Your task to perform on an android device: delete browsing data in the chrome app Image 0: 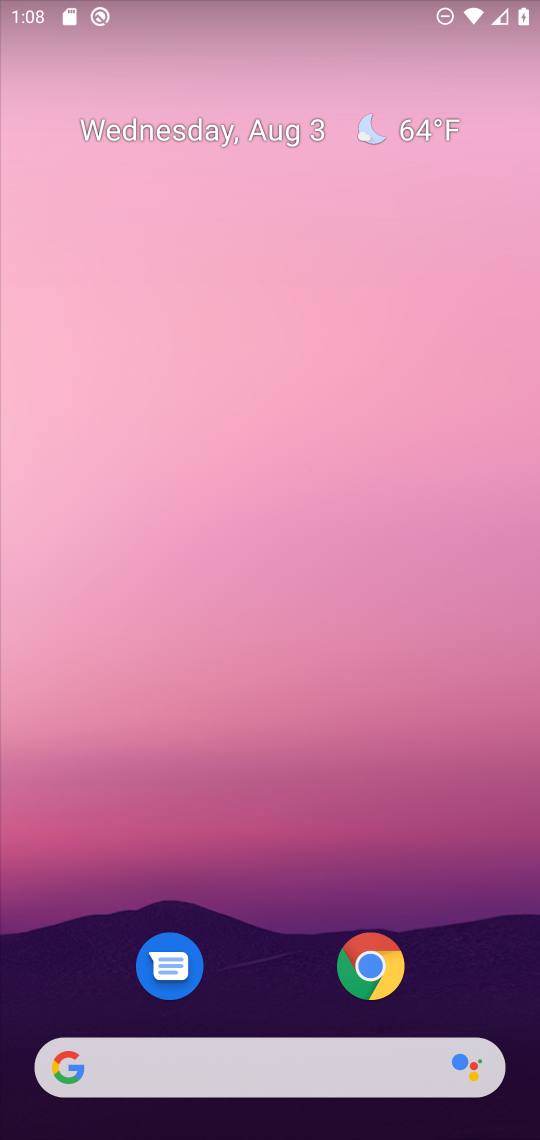
Step 0: click (374, 951)
Your task to perform on an android device: delete browsing data in the chrome app Image 1: 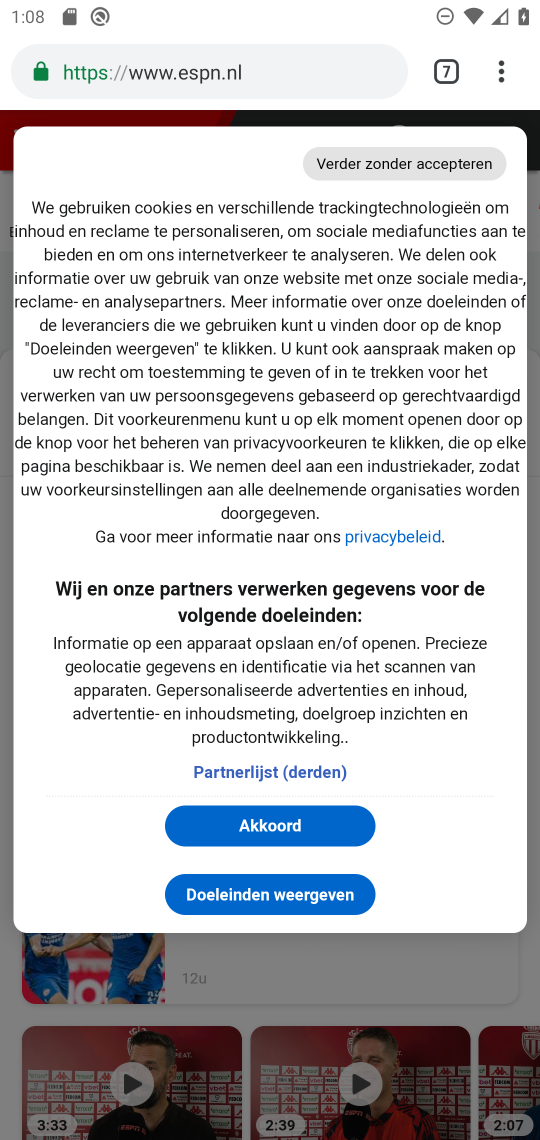
Step 1: click (501, 67)
Your task to perform on an android device: delete browsing data in the chrome app Image 2: 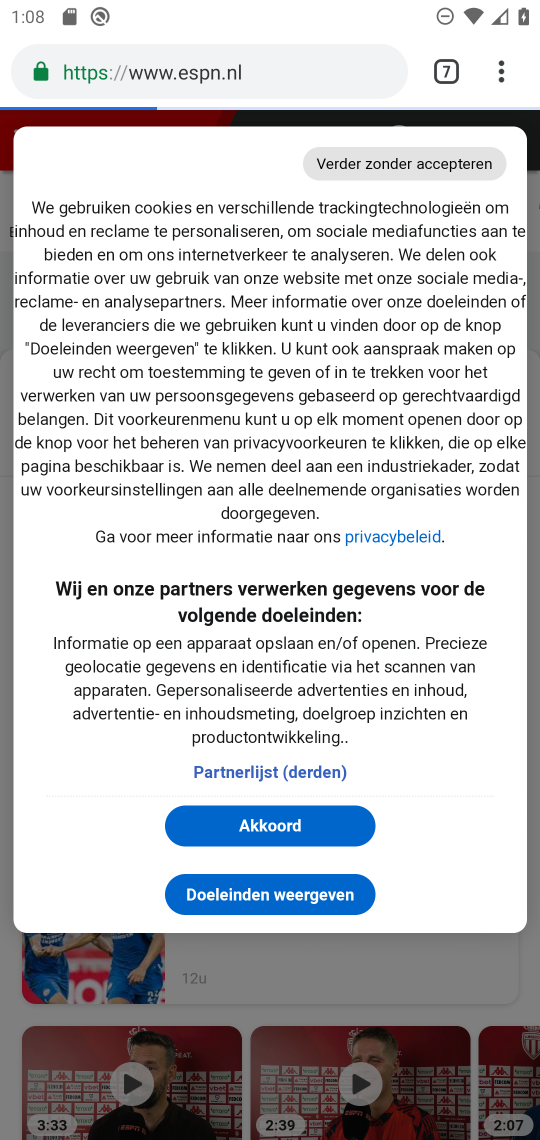
Step 2: drag from (501, 67) to (266, 410)
Your task to perform on an android device: delete browsing data in the chrome app Image 3: 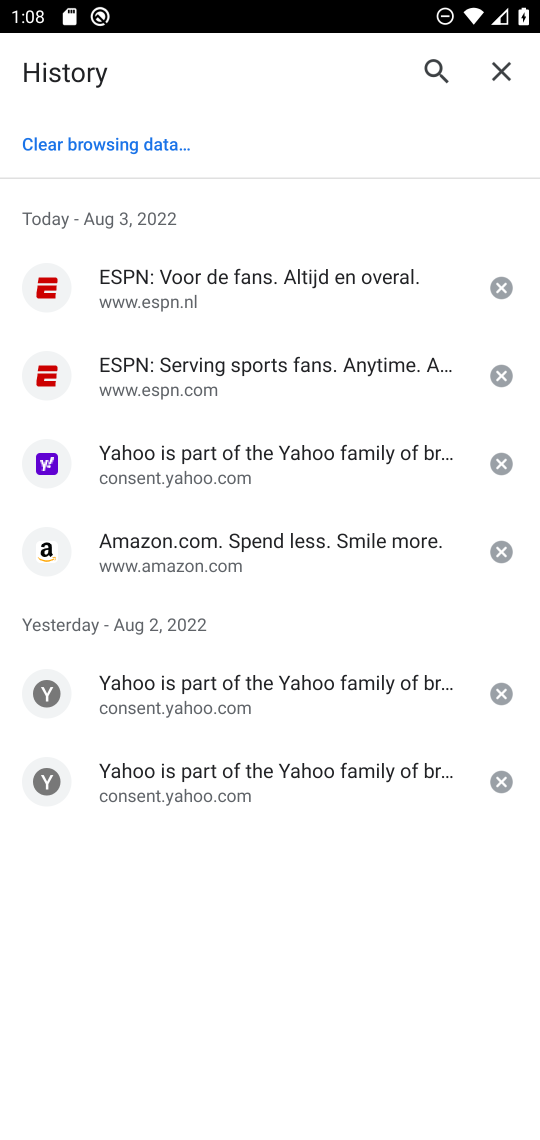
Step 3: click (144, 146)
Your task to perform on an android device: delete browsing data in the chrome app Image 4: 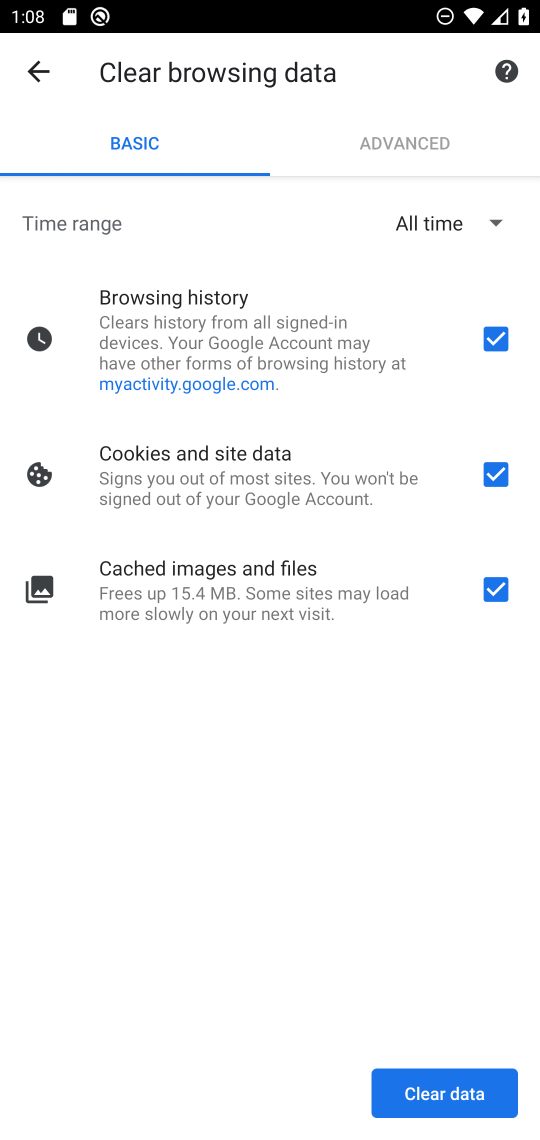
Step 4: click (453, 1080)
Your task to perform on an android device: delete browsing data in the chrome app Image 5: 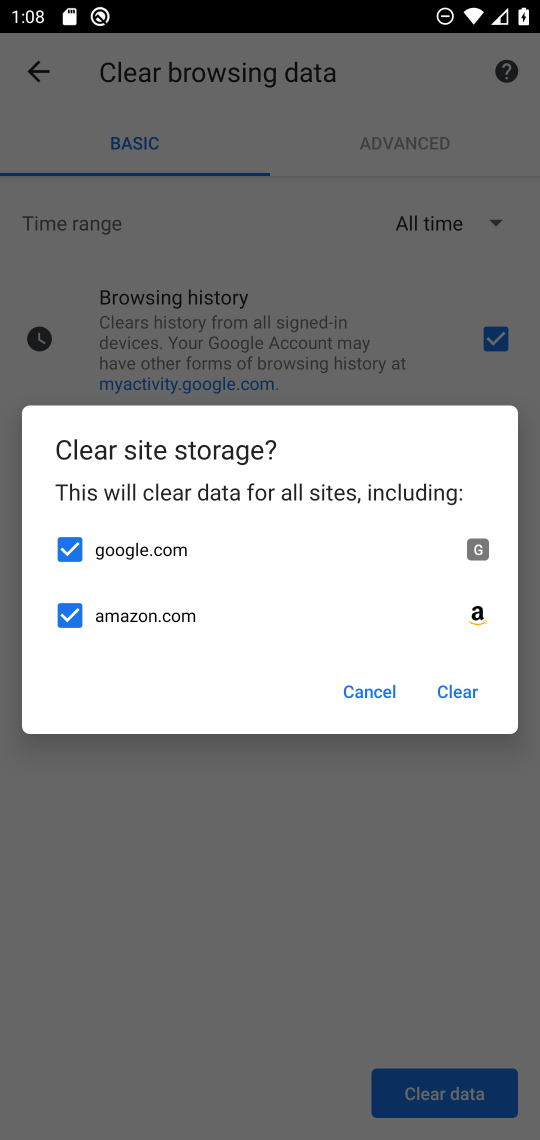
Step 5: click (467, 685)
Your task to perform on an android device: delete browsing data in the chrome app Image 6: 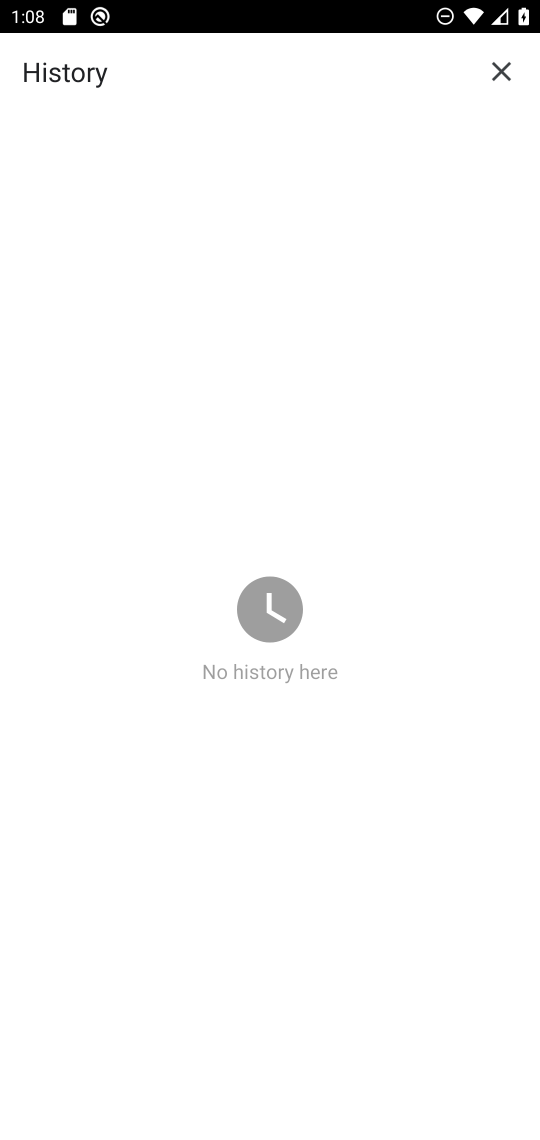
Step 6: task complete